Your task to perform on an android device: show emergency info Image 0: 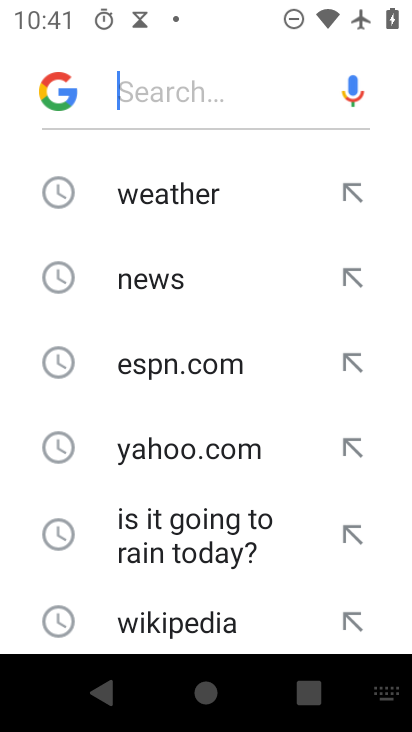
Step 0: press back button
Your task to perform on an android device: show emergency info Image 1: 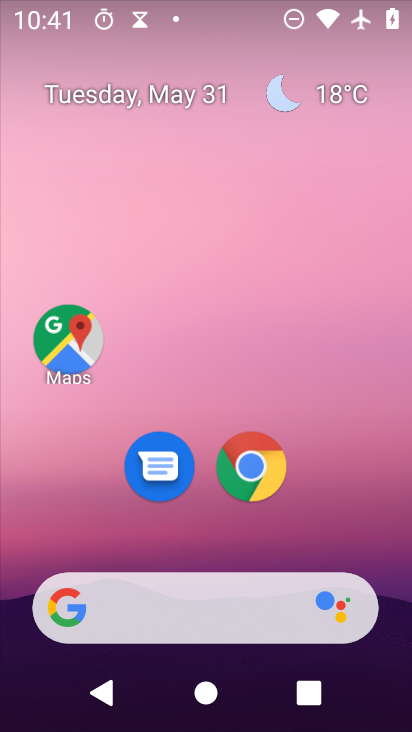
Step 1: drag from (343, 525) to (268, 55)
Your task to perform on an android device: show emergency info Image 2: 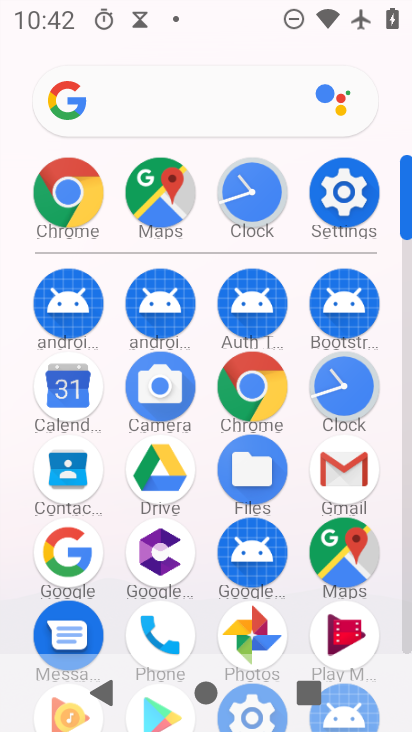
Step 2: click (344, 191)
Your task to perform on an android device: show emergency info Image 3: 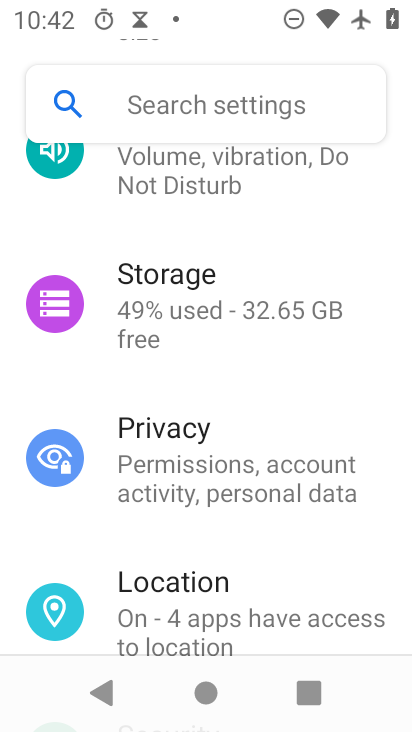
Step 3: drag from (257, 586) to (277, 201)
Your task to perform on an android device: show emergency info Image 4: 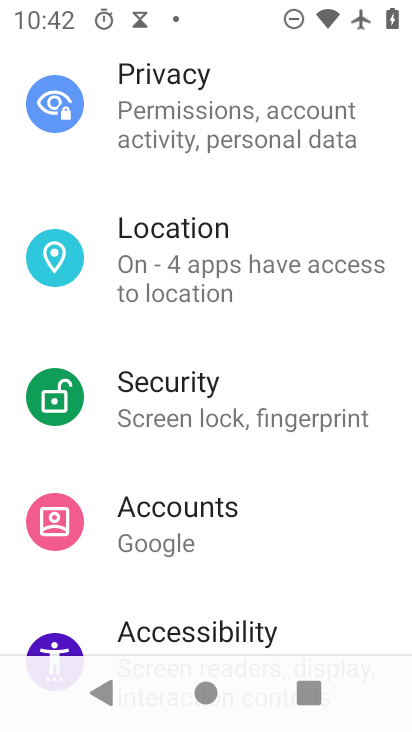
Step 4: drag from (244, 550) to (263, 337)
Your task to perform on an android device: show emergency info Image 5: 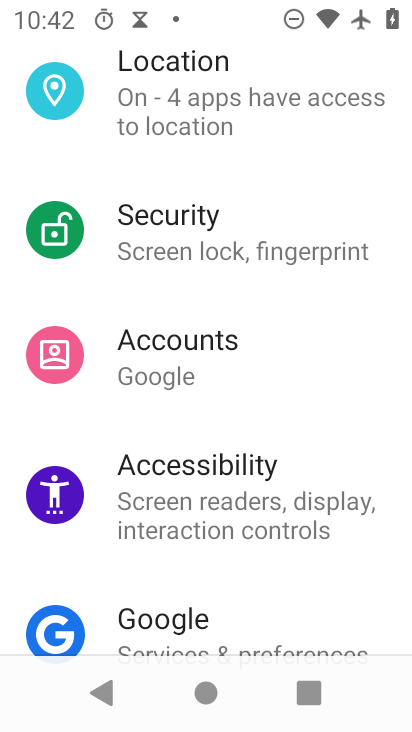
Step 5: drag from (258, 515) to (265, 183)
Your task to perform on an android device: show emergency info Image 6: 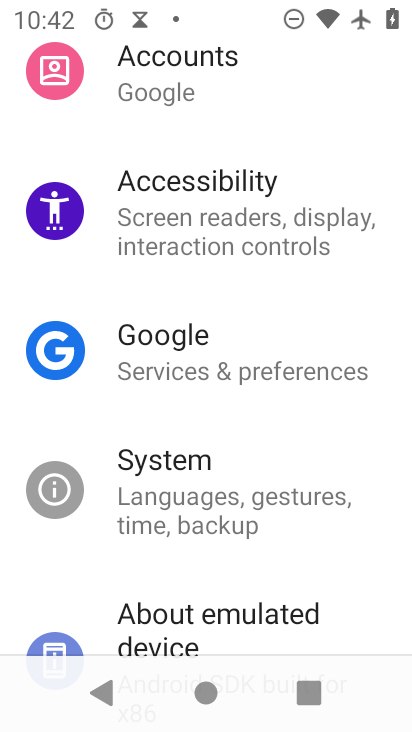
Step 6: drag from (255, 556) to (276, 157)
Your task to perform on an android device: show emergency info Image 7: 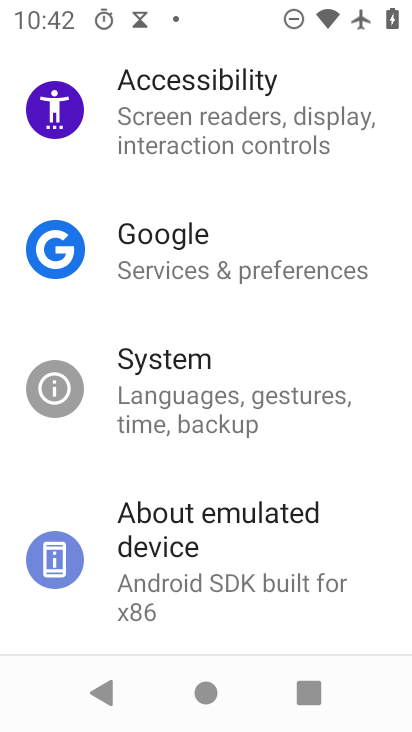
Step 7: drag from (228, 541) to (234, 236)
Your task to perform on an android device: show emergency info Image 8: 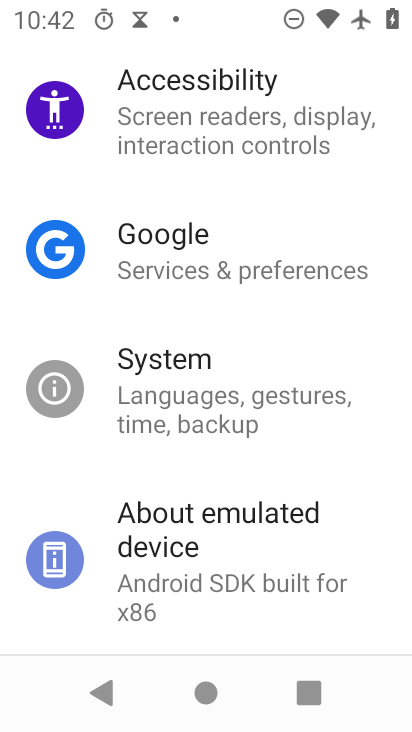
Step 8: click (223, 498)
Your task to perform on an android device: show emergency info Image 9: 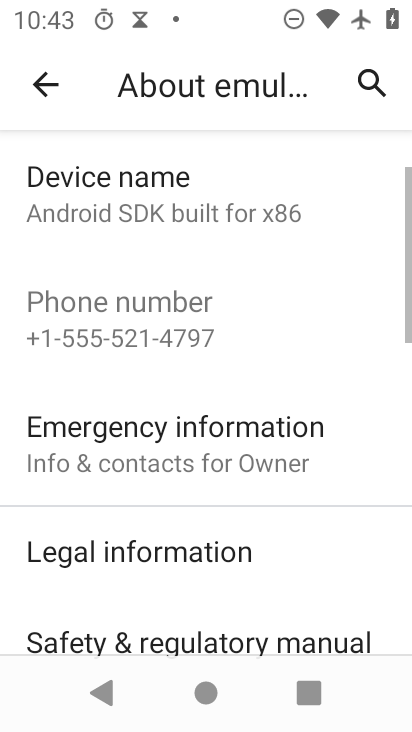
Step 9: task complete